Your task to perform on an android device: add a contact in the contacts app Image 0: 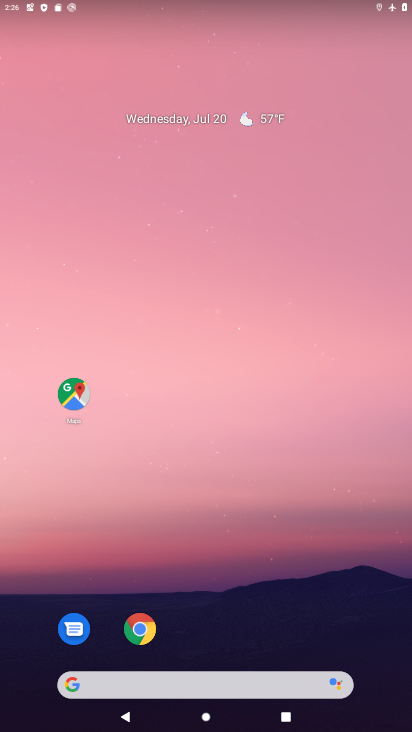
Step 0: drag from (195, 635) to (218, 151)
Your task to perform on an android device: add a contact in the contacts app Image 1: 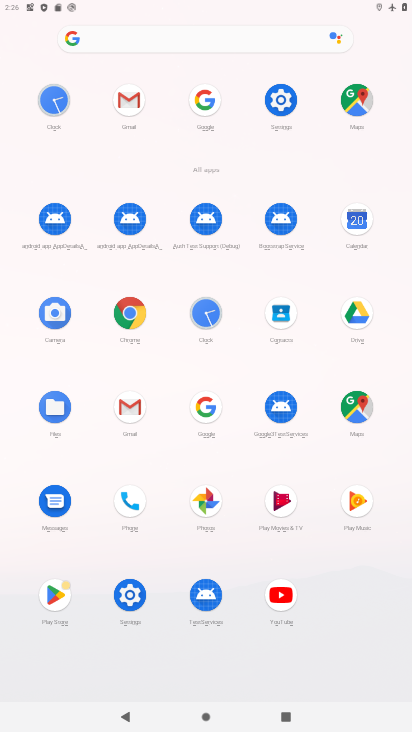
Step 1: click (284, 333)
Your task to perform on an android device: add a contact in the contacts app Image 2: 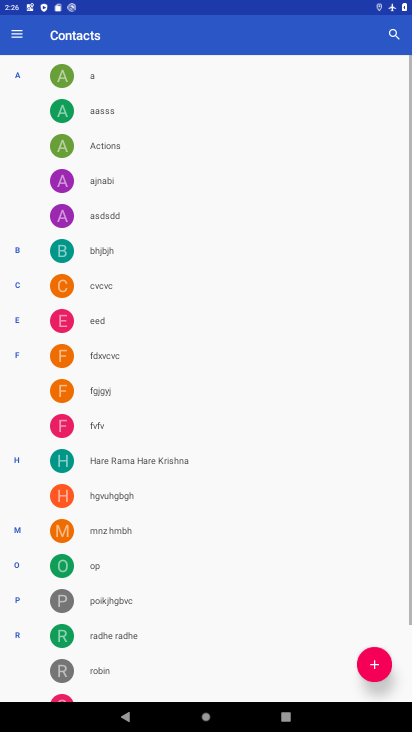
Step 2: click (366, 657)
Your task to perform on an android device: add a contact in the contacts app Image 3: 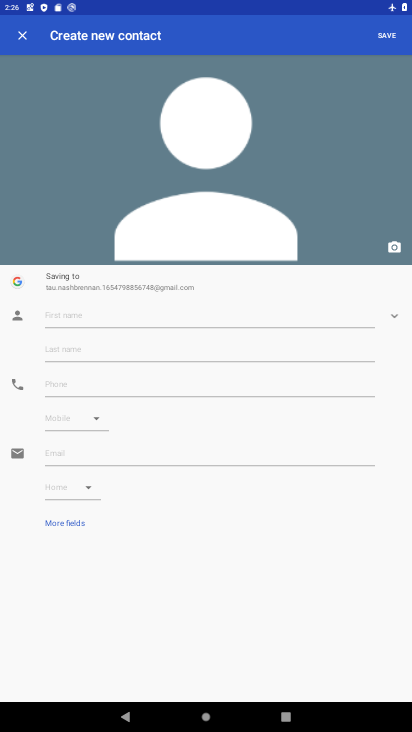
Step 3: click (121, 320)
Your task to perform on an android device: add a contact in the contacts app Image 4: 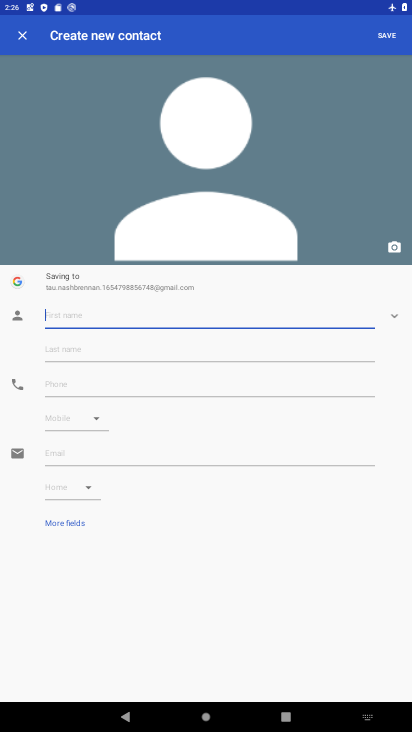
Step 4: type "nhghfh"
Your task to perform on an android device: add a contact in the contacts app Image 5: 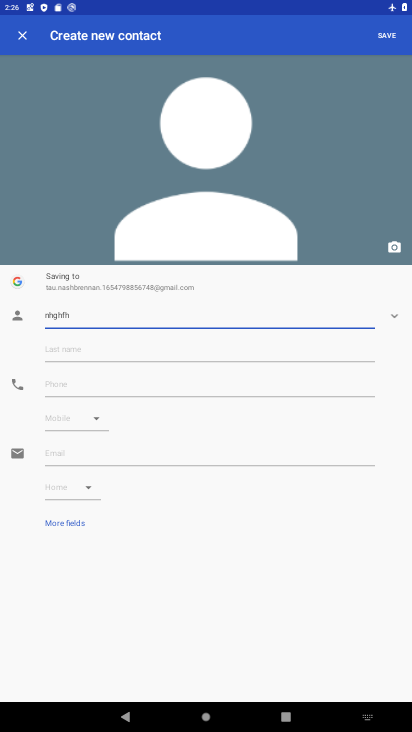
Step 5: click (84, 377)
Your task to perform on an android device: add a contact in the contacts app Image 6: 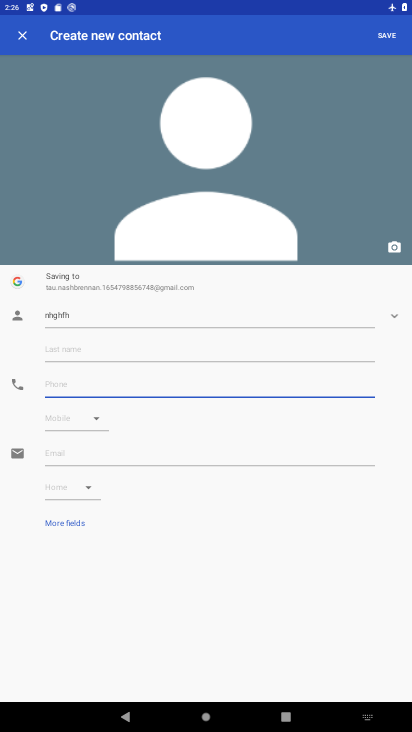
Step 6: type "86574575467"
Your task to perform on an android device: add a contact in the contacts app Image 7: 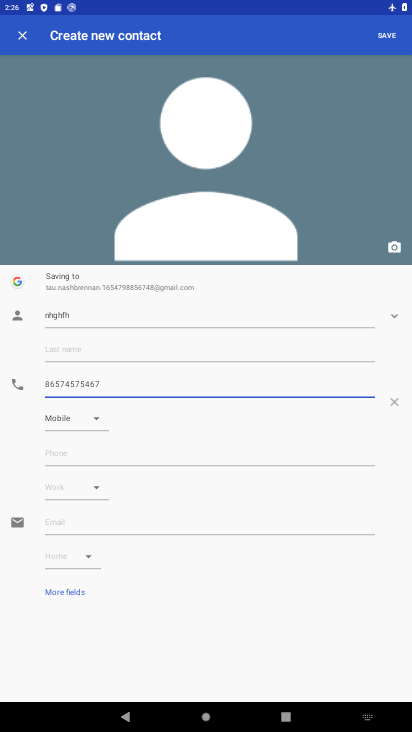
Step 7: click (388, 35)
Your task to perform on an android device: add a contact in the contacts app Image 8: 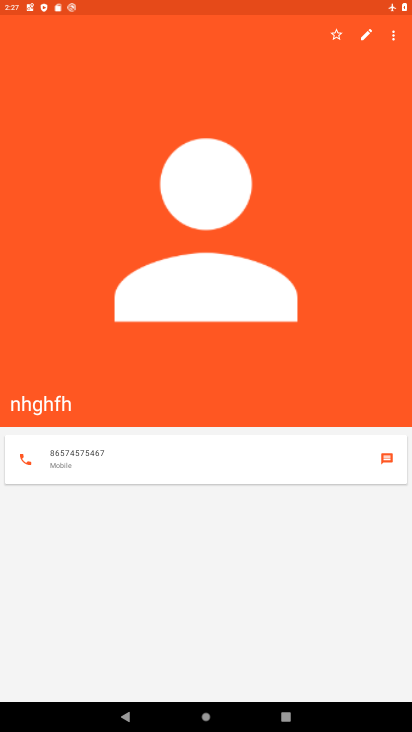
Step 8: task complete